Your task to perform on an android device: Search for the new Apple Watch on Best Buy Image 0: 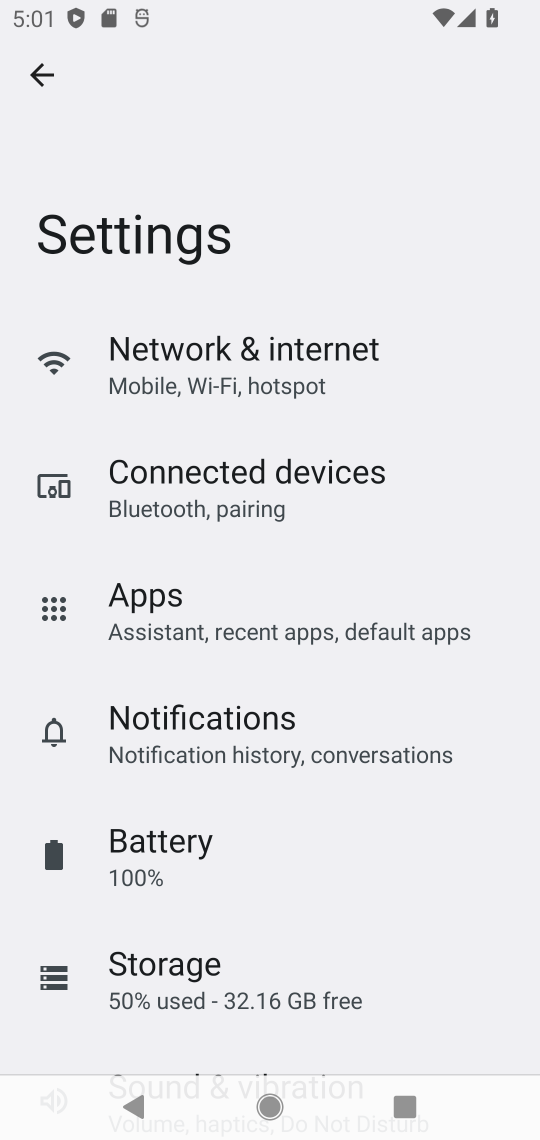
Step 0: press home button
Your task to perform on an android device: Search for the new Apple Watch on Best Buy Image 1: 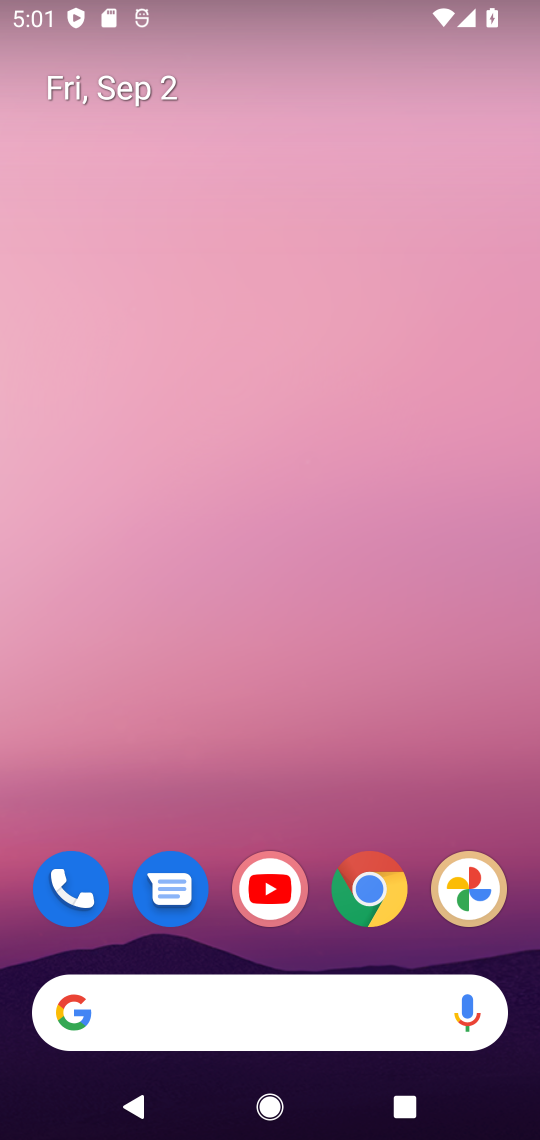
Step 1: click (204, 1039)
Your task to perform on an android device: Search for the new Apple Watch on Best Buy Image 2: 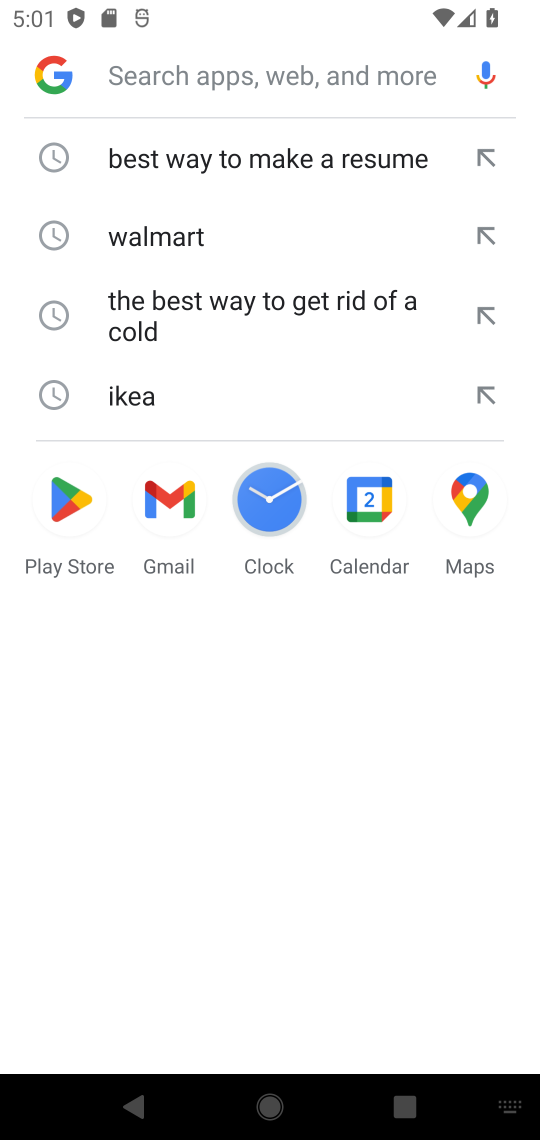
Step 2: type "Best Buy"
Your task to perform on an android device: Search for the new Apple Watch on Best Buy Image 3: 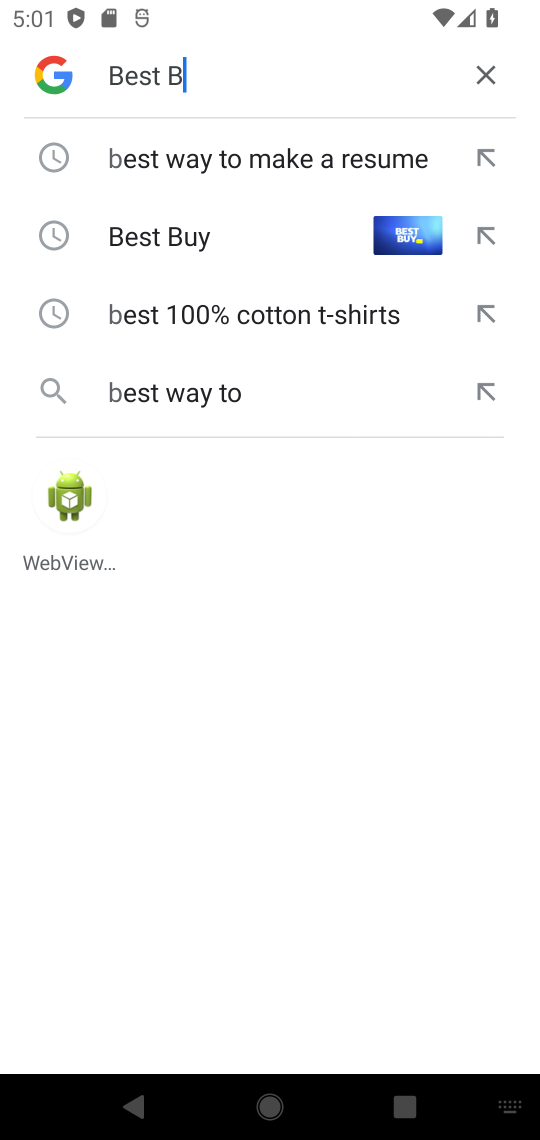
Step 3: type ""
Your task to perform on an android device: Search for the new Apple Watch on Best Buy Image 4: 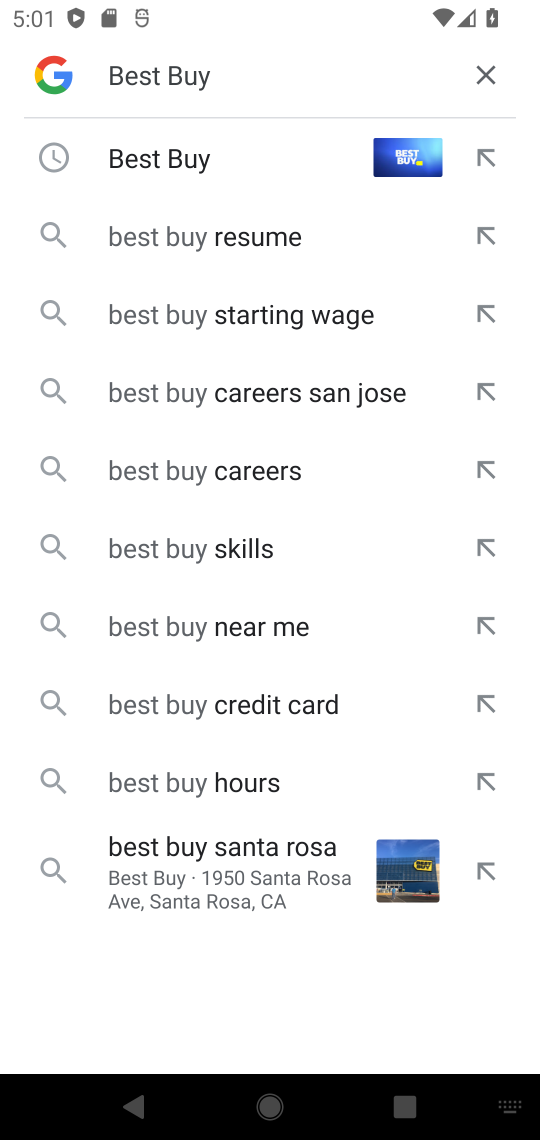
Step 4: click (187, 145)
Your task to perform on an android device: Search for the new Apple Watch on Best Buy Image 5: 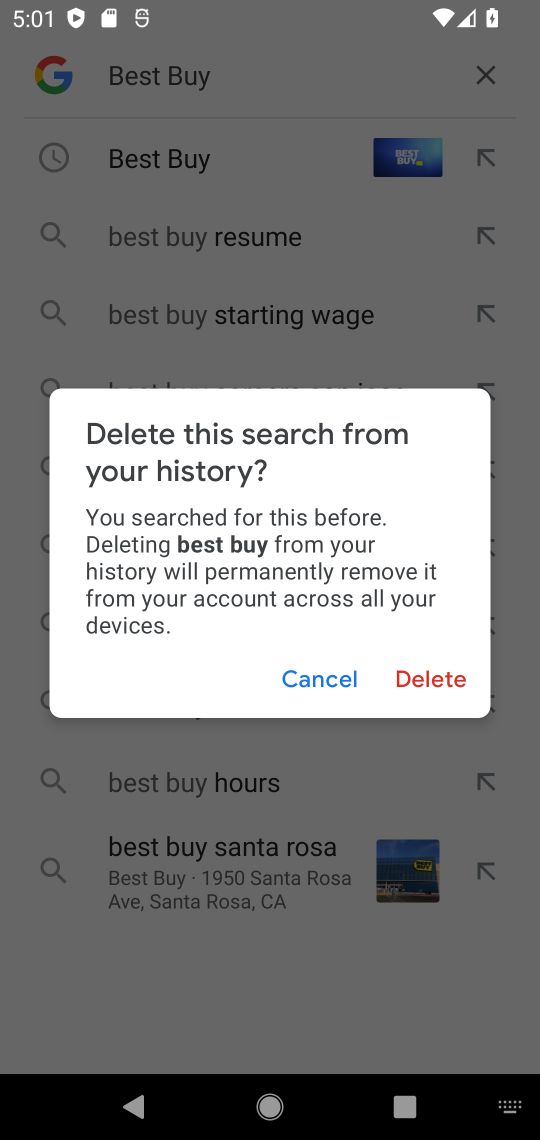
Step 5: click (310, 677)
Your task to perform on an android device: Search for the new Apple Watch on Best Buy Image 6: 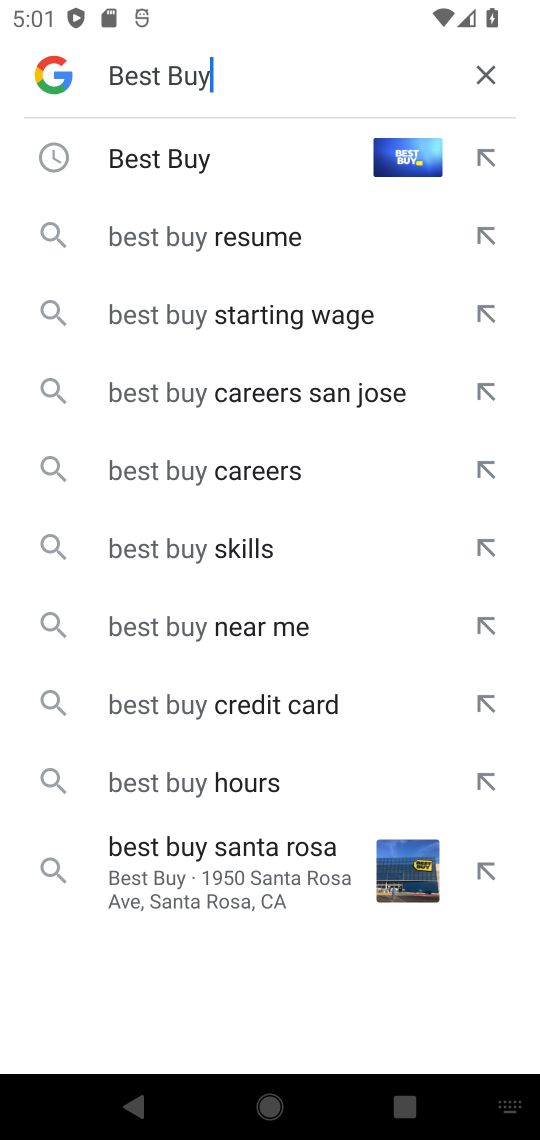
Step 6: click (177, 160)
Your task to perform on an android device: Search for the new Apple Watch on Best Buy Image 7: 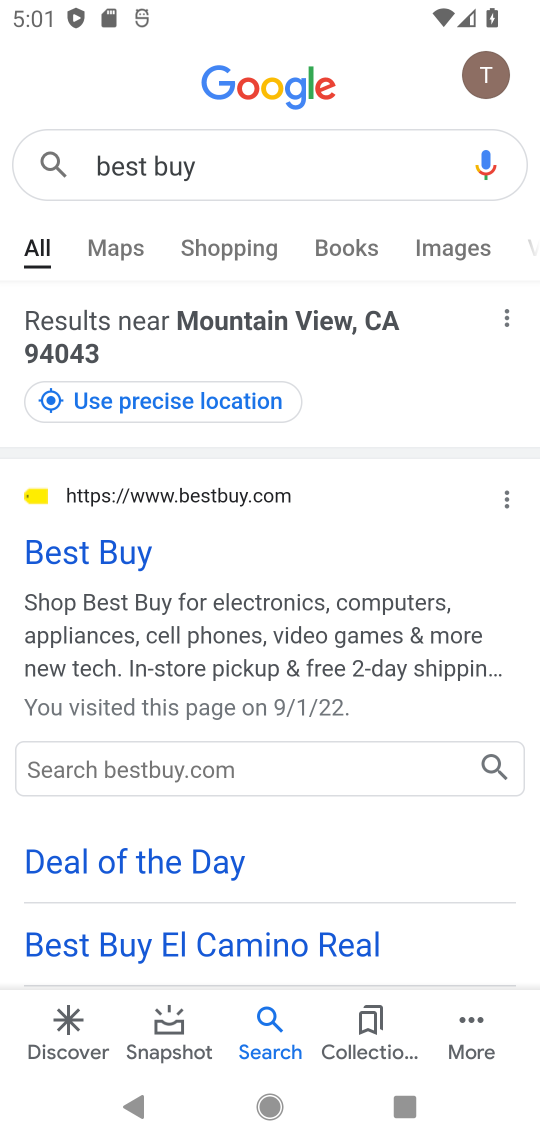
Step 7: click (93, 540)
Your task to perform on an android device: Search for the new Apple Watch on Best Buy Image 8: 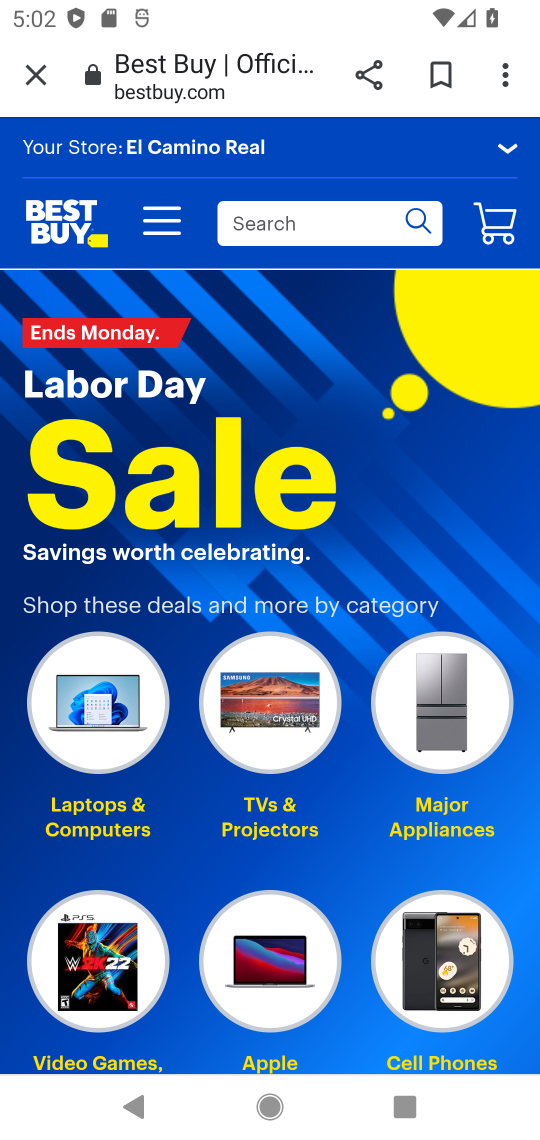
Step 8: click (279, 225)
Your task to perform on an android device: Search for the new Apple Watch on Best Buy Image 9: 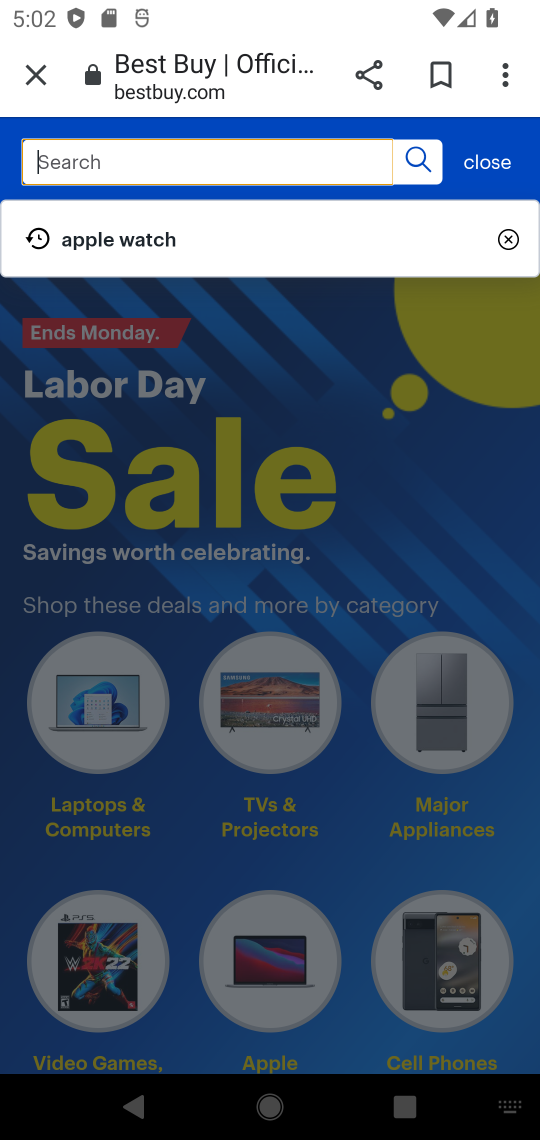
Step 9: click (159, 255)
Your task to perform on an android device: Search for the new Apple Watch on Best Buy Image 10: 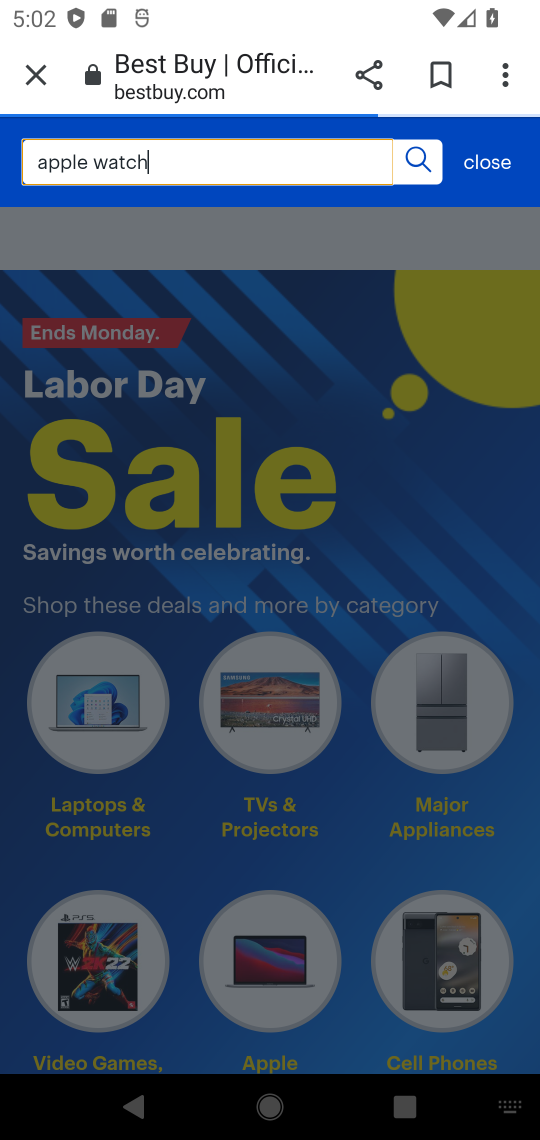
Step 10: click (416, 157)
Your task to perform on an android device: Search for the new Apple Watch on Best Buy Image 11: 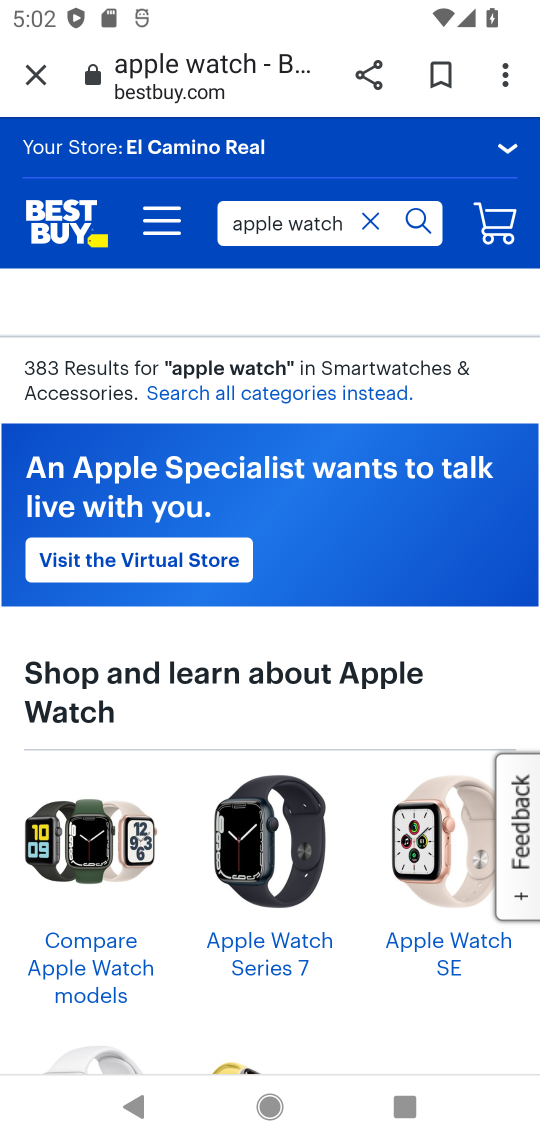
Step 11: task complete